Your task to perform on an android device: open sync settings in chrome Image 0: 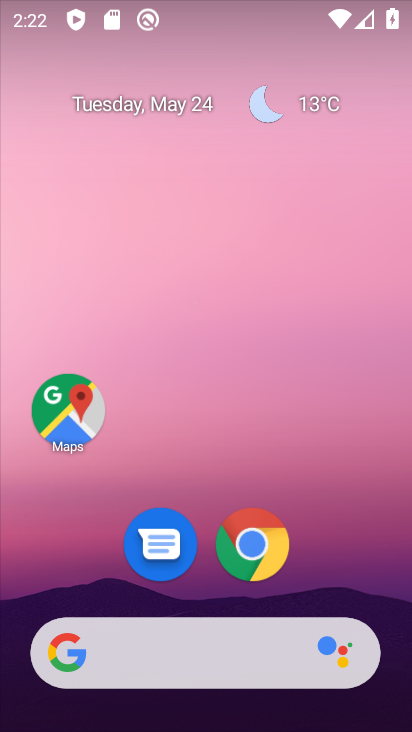
Step 0: drag from (336, 554) to (397, 66)
Your task to perform on an android device: open sync settings in chrome Image 1: 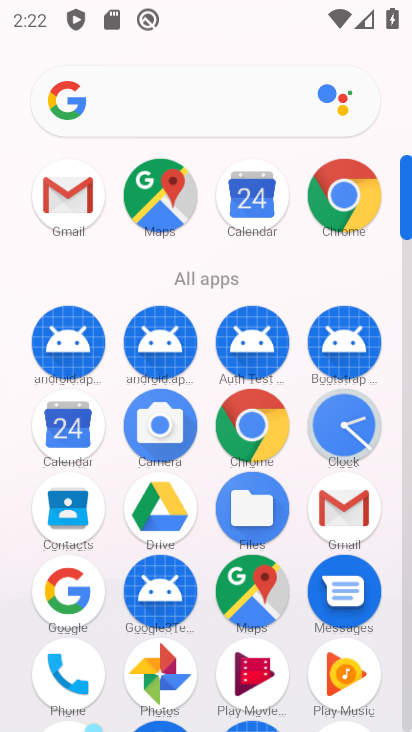
Step 1: click (346, 206)
Your task to perform on an android device: open sync settings in chrome Image 2: 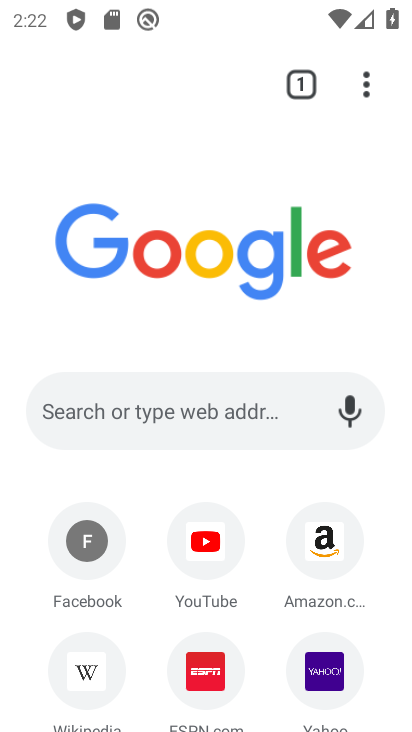
Step 2: drag from (369, 82) to (39, 592)
Your task to perform on an android device: open sync settings in chrome Image 3: 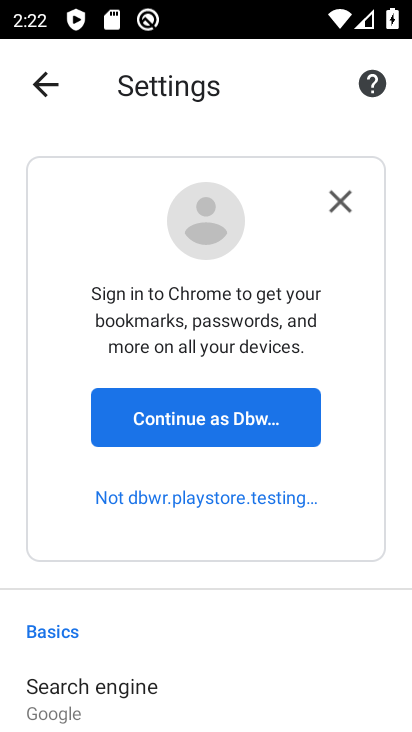
Step 3: drag from (207, 668) to (229, 290)
Your task to perform on an android device: open sync settings in chrome Image 4: 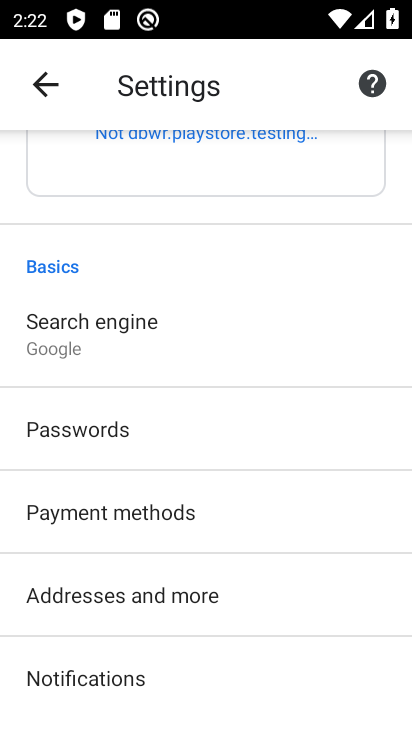
Step 4: drag from (184, 563) to (190, 220)
Your task to perform on an android device: open sync settings in chrome Image 5: 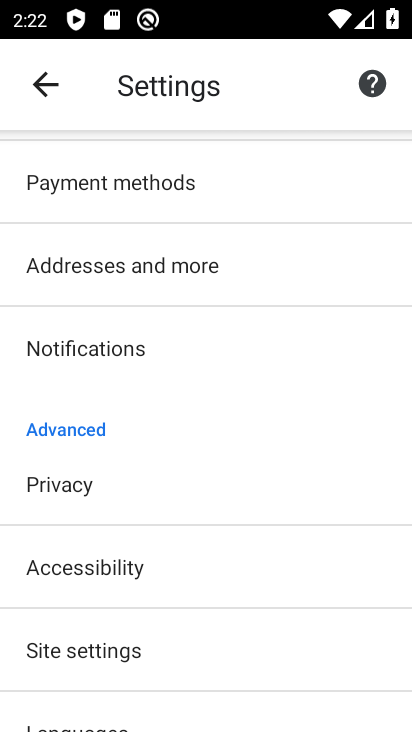
Step 5: drag from (163, 585) to (234, 241)
Your task to perform on an android device: open sync settings in chrome Image 6: 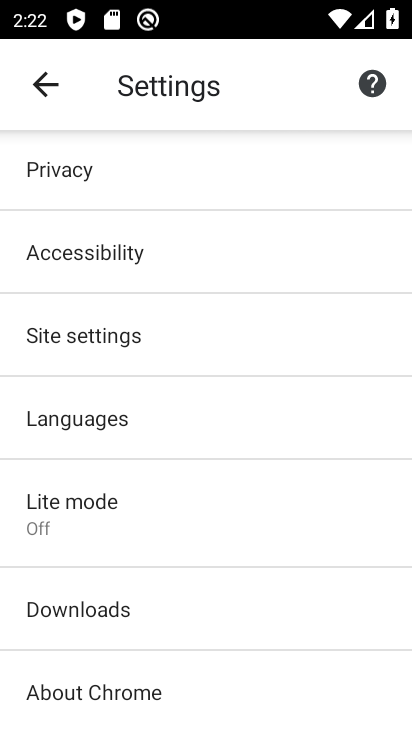
Step 6: drag from (126, 658) to (175, 307)
Your task to perform on an android device: open sync settings in chrome Image 7: 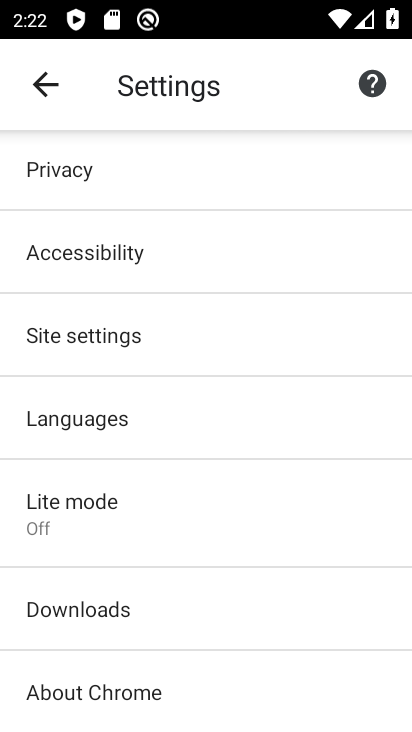
Step 7: click (63, 328)
Your task to perform on an android device: open sync settings in chrome Image 8: 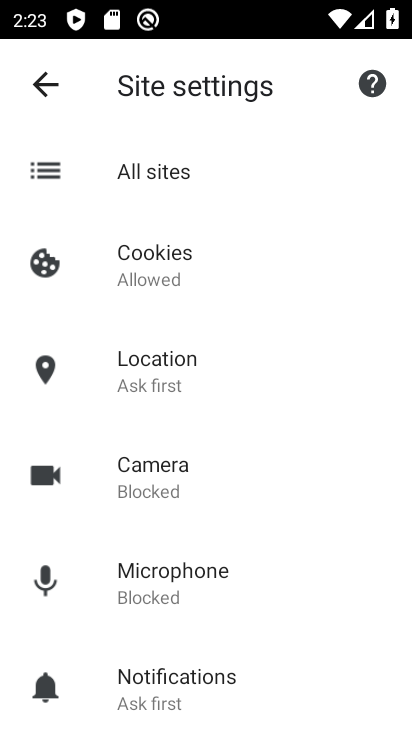
Step 8: drag from (185, 650) to (247, 237)
Your task to perform on an android device: open sync settings in chrome Image 9: 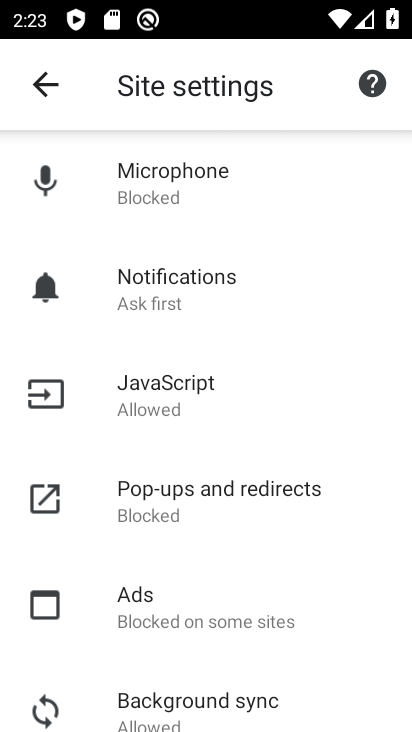
Step 9: drag from (241, 610) to (237, 311)
Your task to perform on an android device: open sync settings in chrome Image 10: 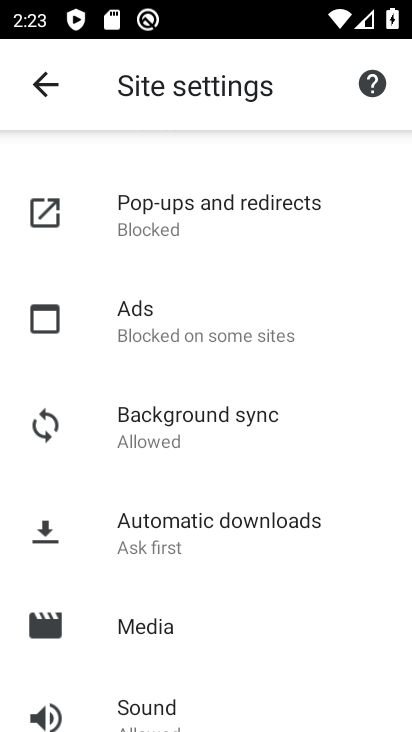
Step 10: click (193, 402)
Your task to perform on an android device: open sync settings in chrome Image 11: 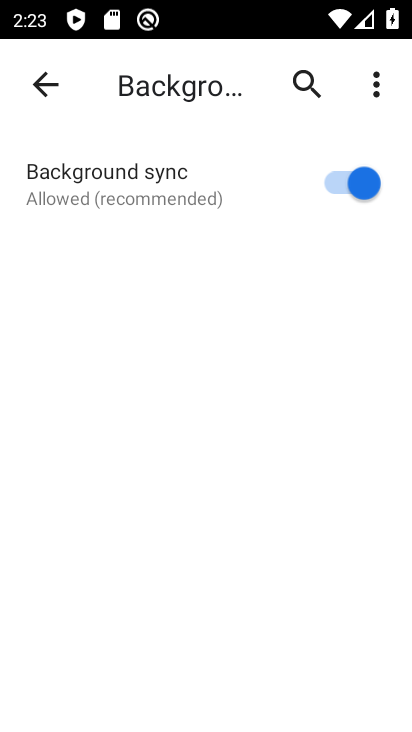
Step 11: task complete